Your task to perform on an android device: Open Reddit.com Image 0: 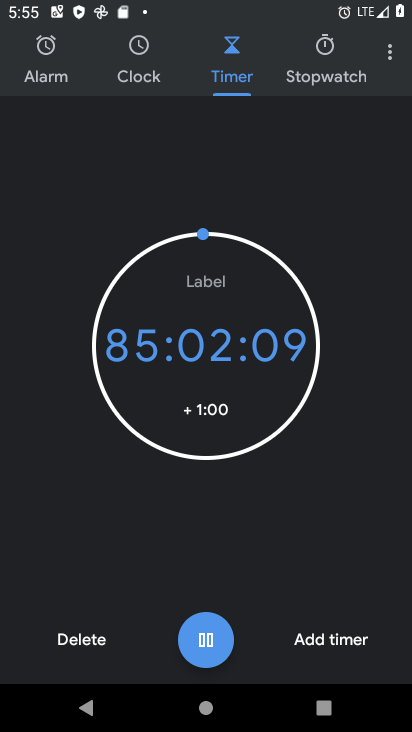
Step 0: press home button
Your task to perform on an android device: Open Reddit.com Image 1: 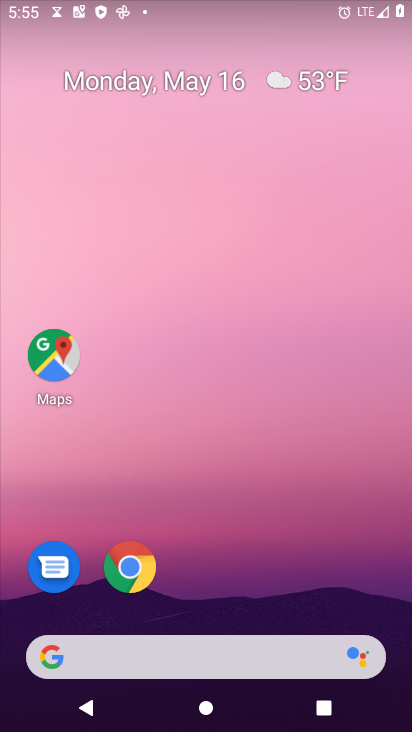
Step 1: drag from (239, 639) to (260, 0)
Your task to perform on an android device: Open Reddit.com Image 2: 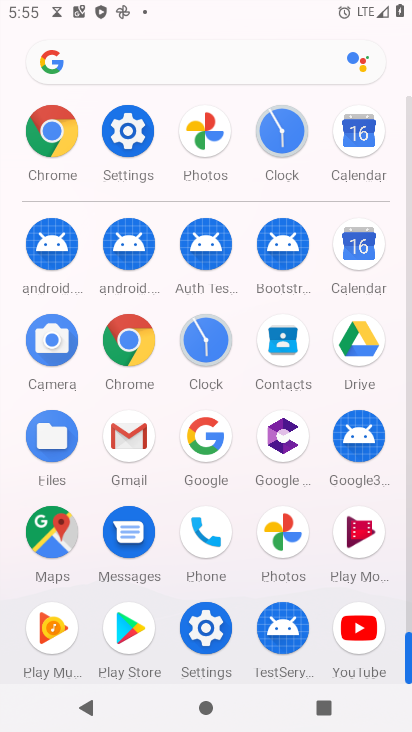
Step 2: click (118, 339)
Your task to perform on an android device: Open Reddit.com Image 3: 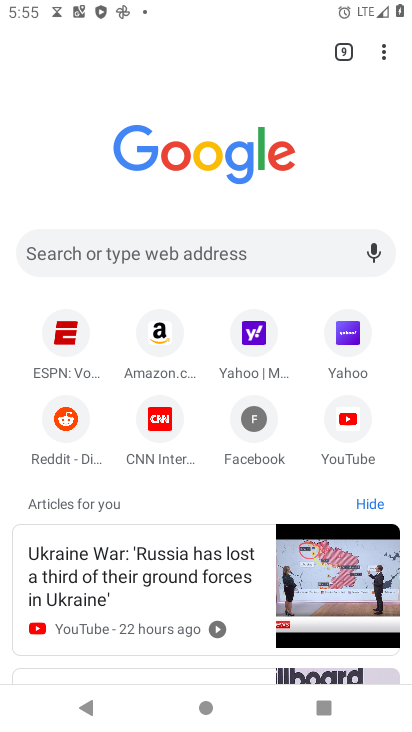
Step 3: click (54, 408)
Your task to perform on an android device: Open Reddit.com Image 4: 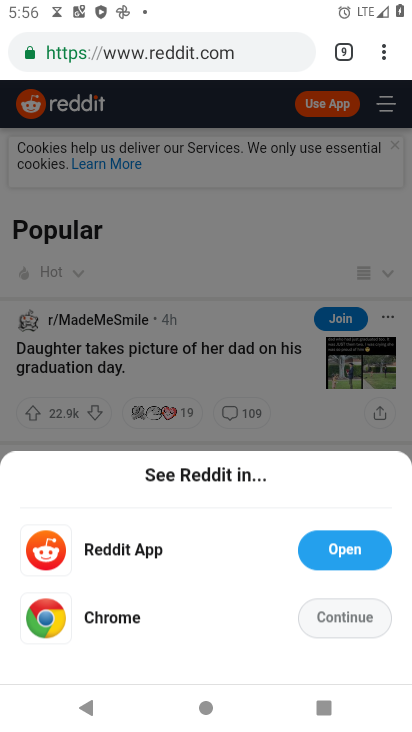
Step 4: task complete